Your task to perform on an android device: Go to wifi settings Image 0: 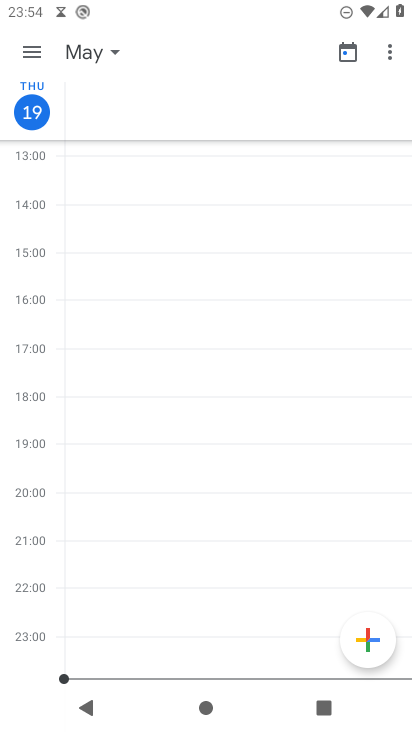
Step 0: drag from (251, 616) to (278, 455)
Your task to perform on an android device: Go to wifi settings Image 1: 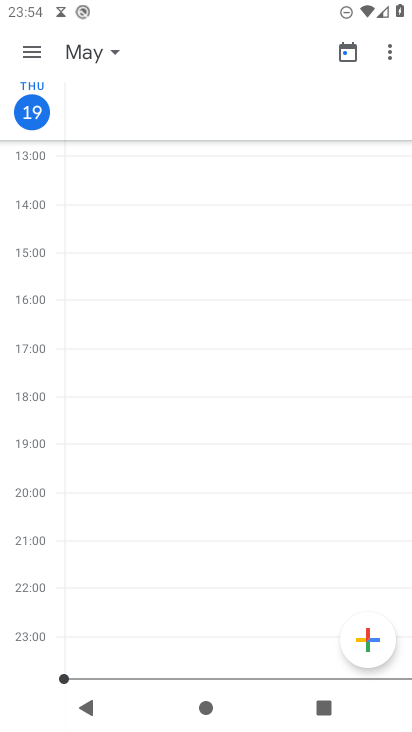
Step 1: click (294, 298)
Your task to perform on an android device: Go to wifi settings Image 2: 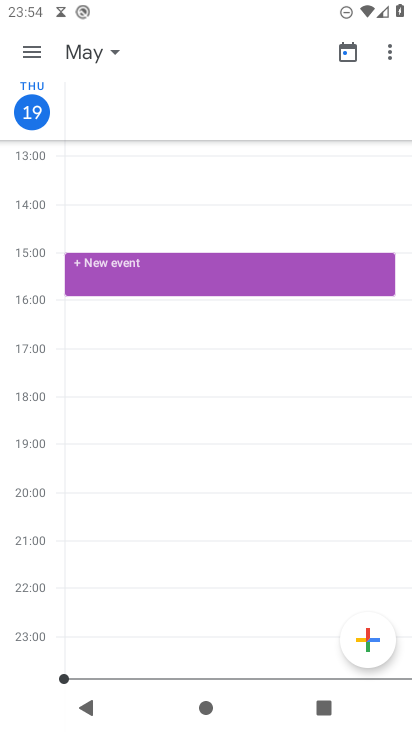
Step 2: press home button
Your task to perform on an android device: Go to wifi settings Image 3: 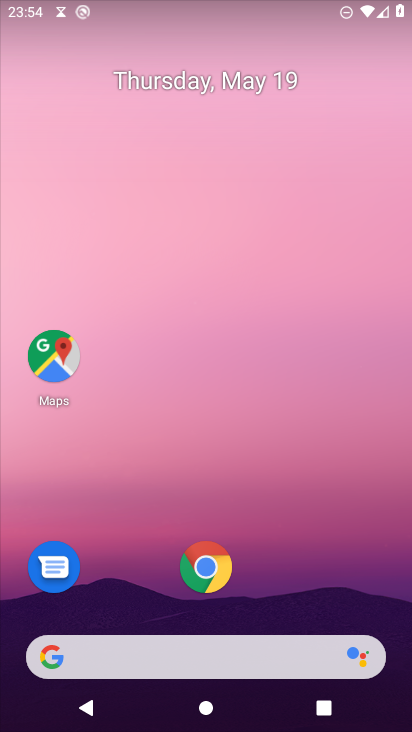
Step 3: drag from (149, 604) to (193, 77)
Your task to perform on an android device: Go to wifi settings Image 4: 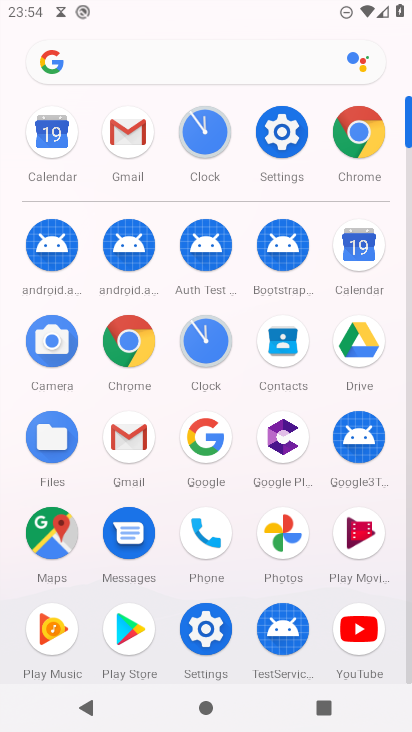
Step 4: click (278, 125)
Your task to perform on an android device: Go to wifi settings Image 5: 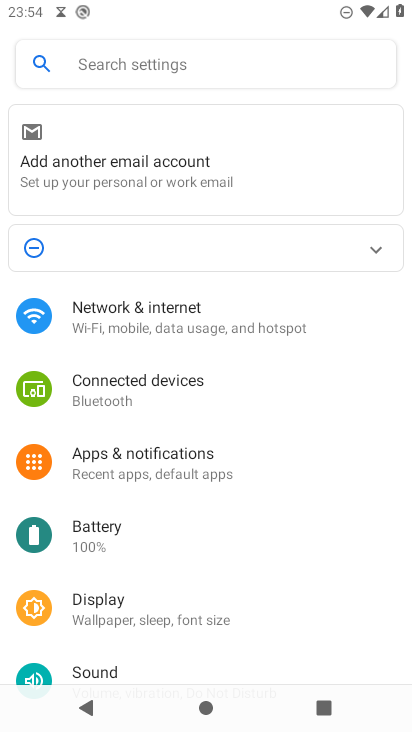
Step 5: click (215, 311)
Your task to perform on an android device: Go to wifi settings Image 6: 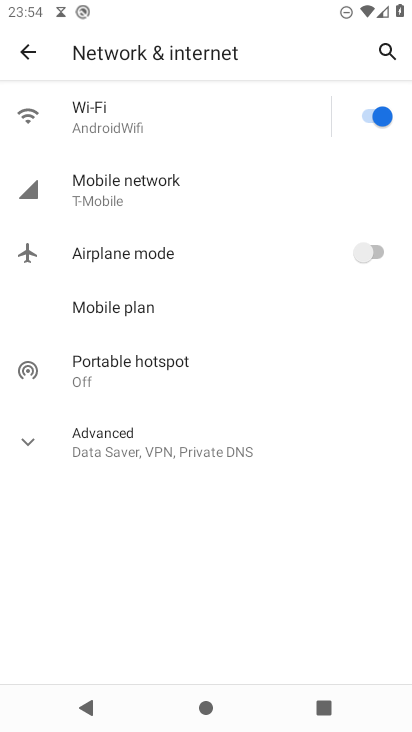
Step 6: click (171, 122)
Your task to perform on an android device: Go to wifi settings Image 7: 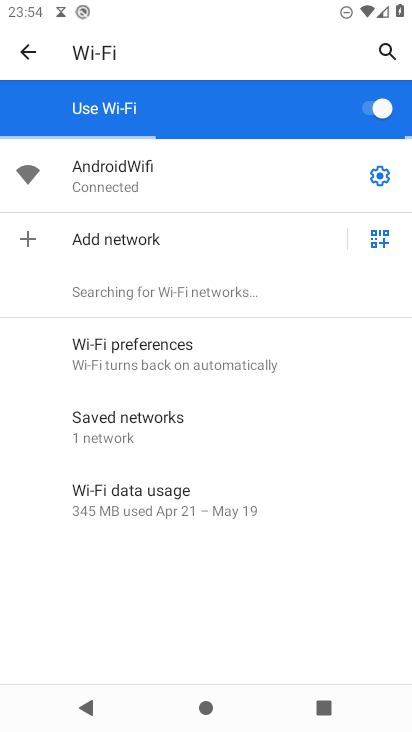
Step 7: task complete